Your task to perform on an android device: change alarm snooze length Image 0: 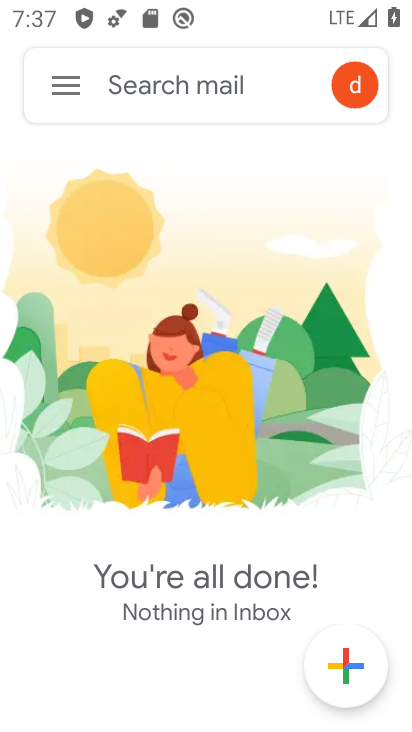
Step 0: press home button
Your task to perform on an android device: change alarm snooze length Image 1: 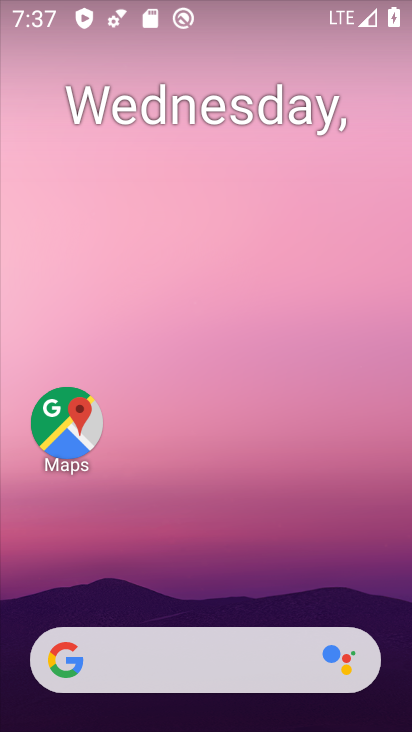
Step 1: drag from (216, 611) to (189, 184)
Your task to perform on an android device: change alarm snooze length Image 2: 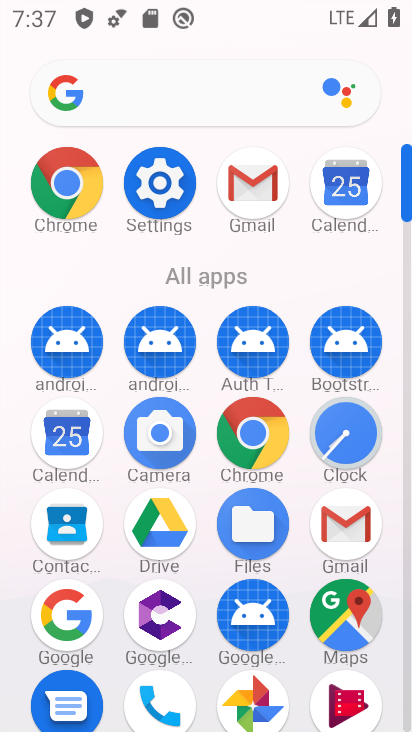
Step 2: click (347, 443)
Your task to perform on an android device: change alarm snooze length Image 3: 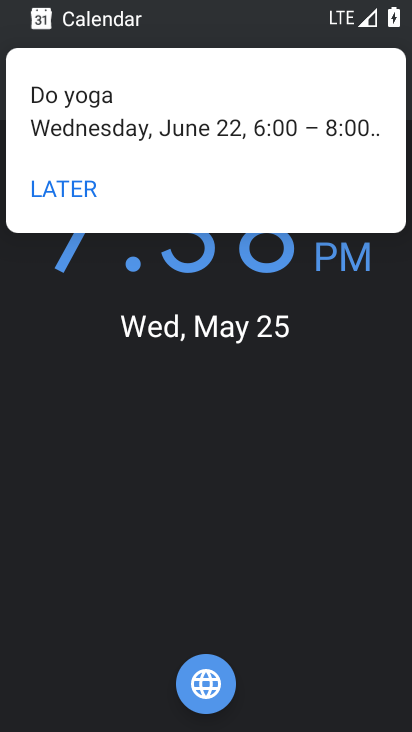
Step 3: click (50, 183)
Your task to perform on an android device: change alarm snooze length Image 4: 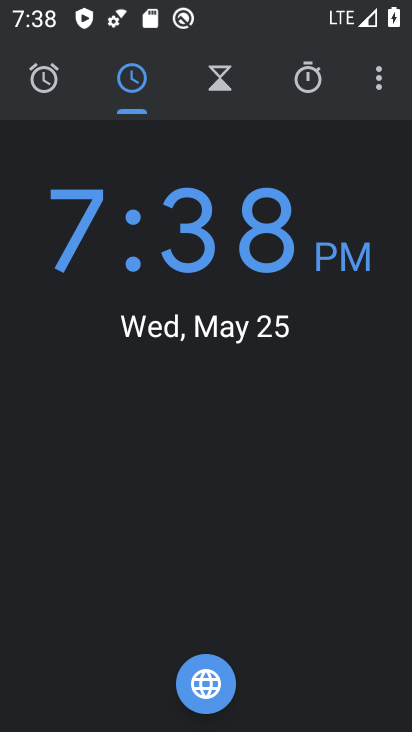
Step 4: click (382, 102)
Your task to perform on an android device: change alarm snooze length Image 5: 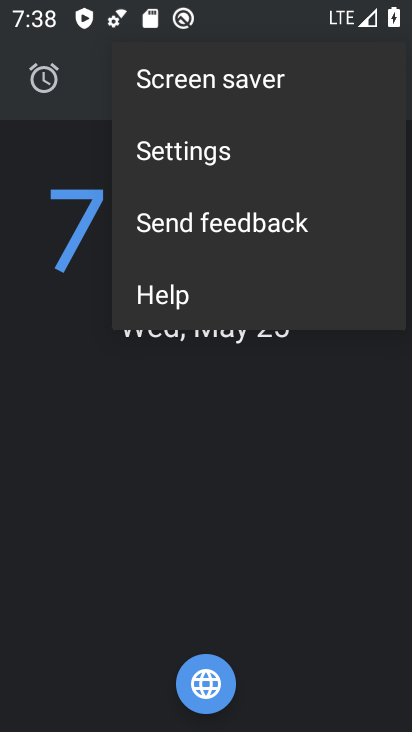
Step 5: click (188, 150)
Your task to perform on an android device: change alarm snooze length Image 6: 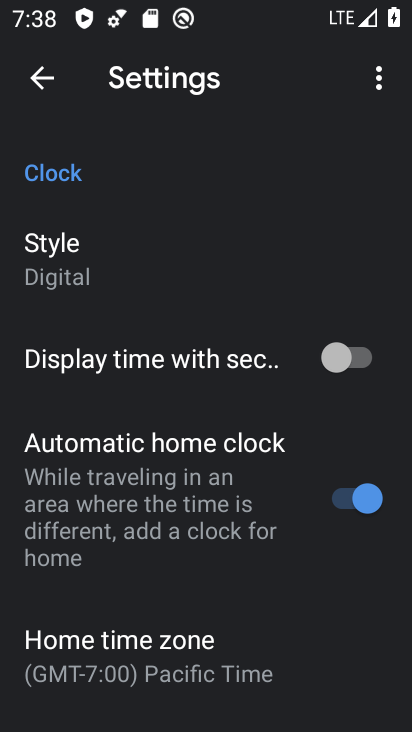
Step 6: drag from (271, 681) to (226, 417)
Your task to perform on an android device: change alarm snooze length Image 7: 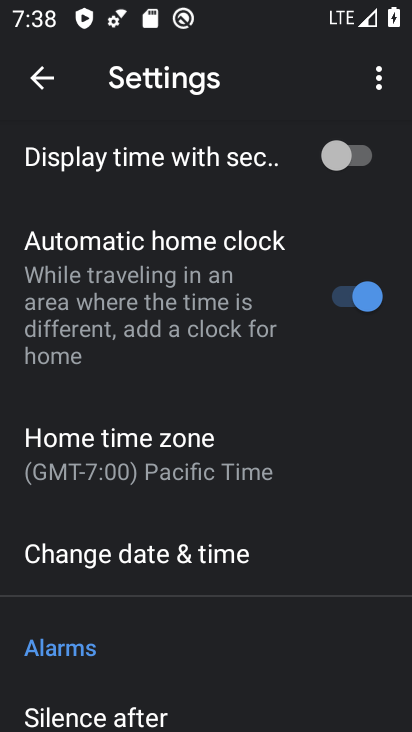
Step 7: drag from (165, 568) to (40, 120)
Your task to perform on an android device: change alarm snooze length Image 8: 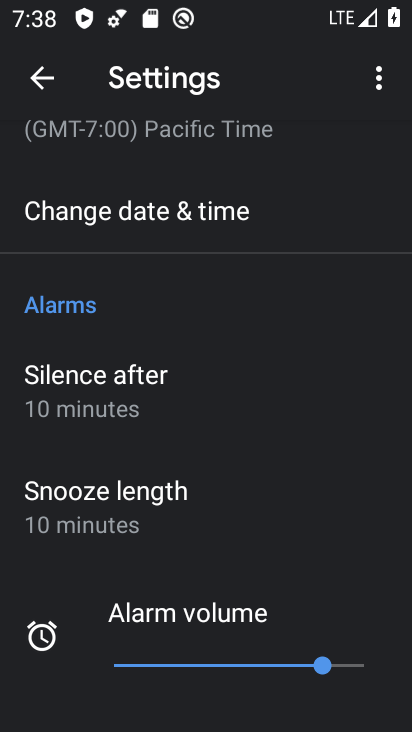
Step 8: click (88, 509)
Your task to perform on an android device: change alarm snooze length Image 9: 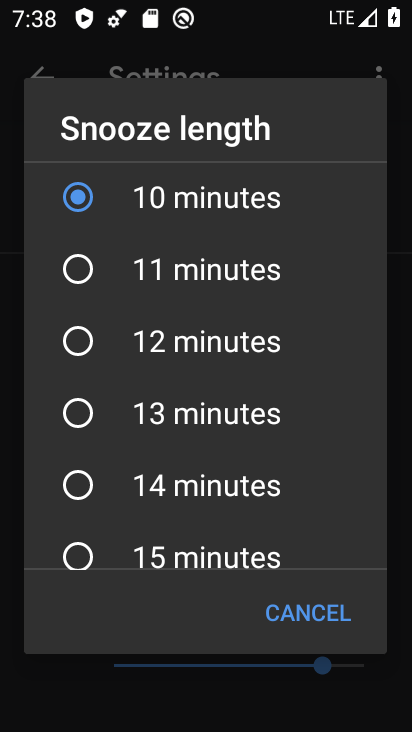
Step 9: click (76, 263)
Your task to perform on an android device: change alarm snooze length Image 10: 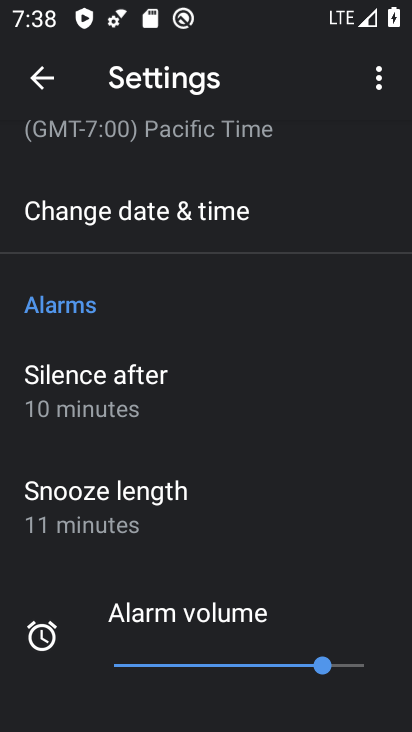
Step 10: task complete